Your task to perform on an android device: open app "DuckDuckGo Privacy Browser" Image 0: 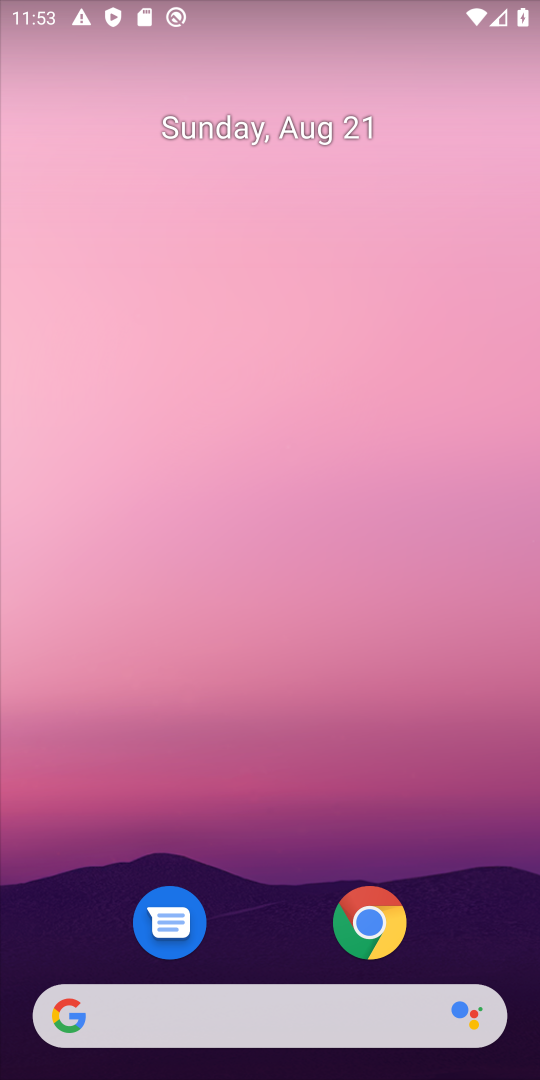
Step 0: drag from (256, 992) to (319, 433)
Your task to perform on an android device: open app "DuckDuckGo Privacy Browser" Image 1: 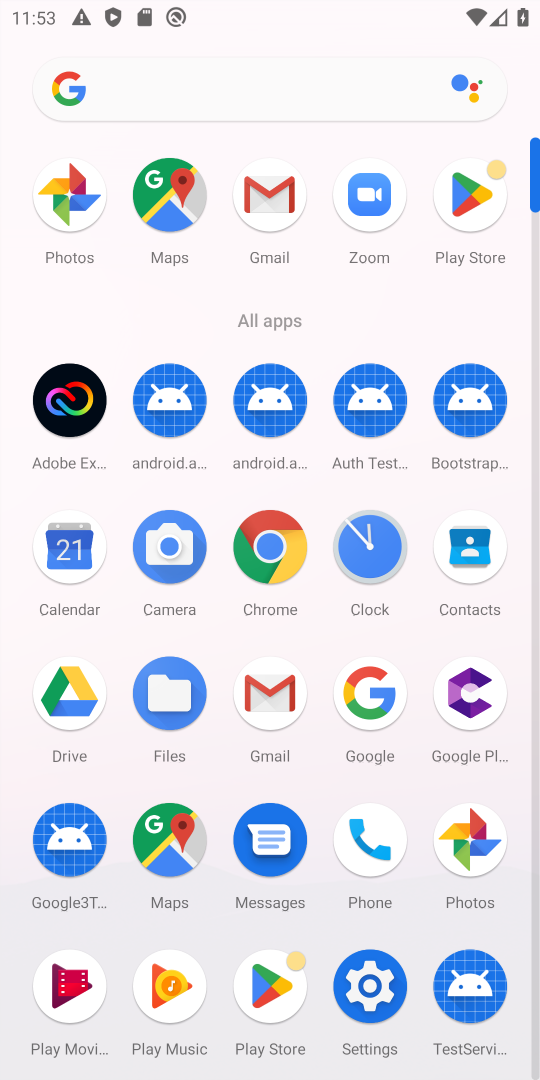
Step 1: click (480, 206)
Your task to perform on an android device: open app "DuckDuckGo Privacy Browser" Image 2: 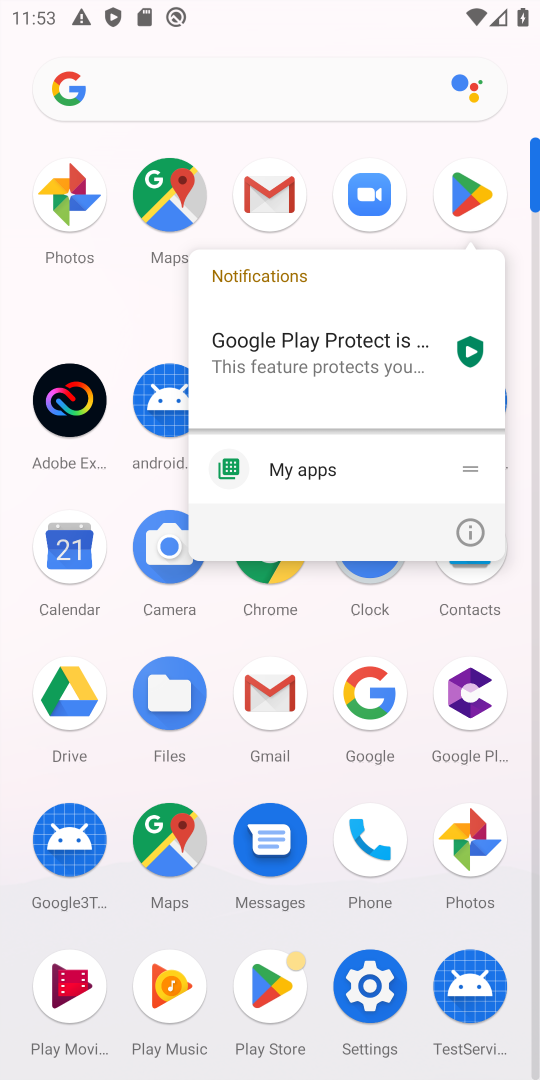
Step 2: click (475, 197)
Your task to perform on an android device: open app "DuckDuckGo Privacy Browser" Image 3: 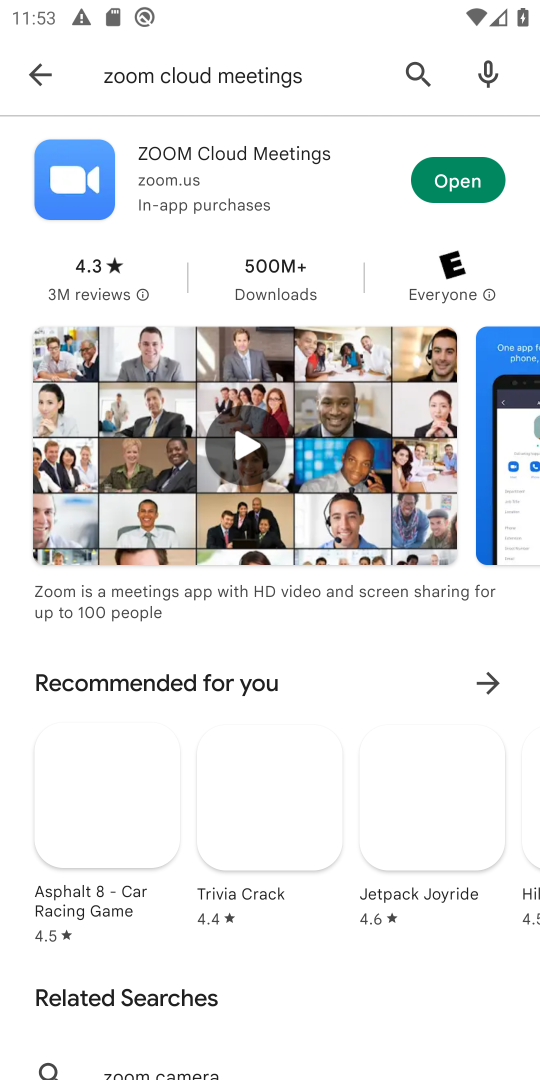
Step 3: click (413, 68)
Your task to perform on an android device: open app "DuckDuckGo Privacy Browser" Image 4: 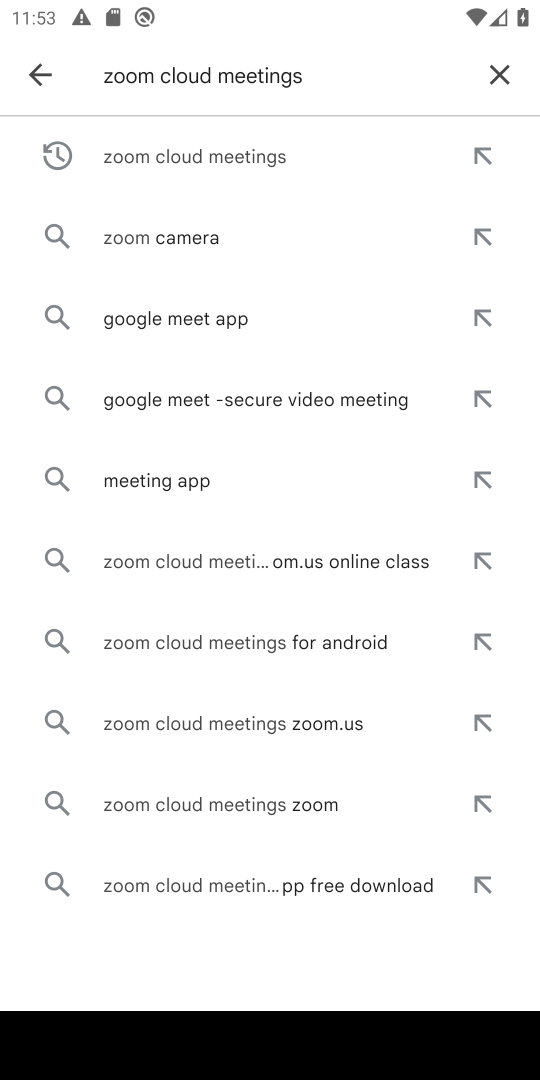
Step 4: click (486, 86)
Your task to perform on an android device: open app "DuckDuckGo Privacy Browser" Image 5: 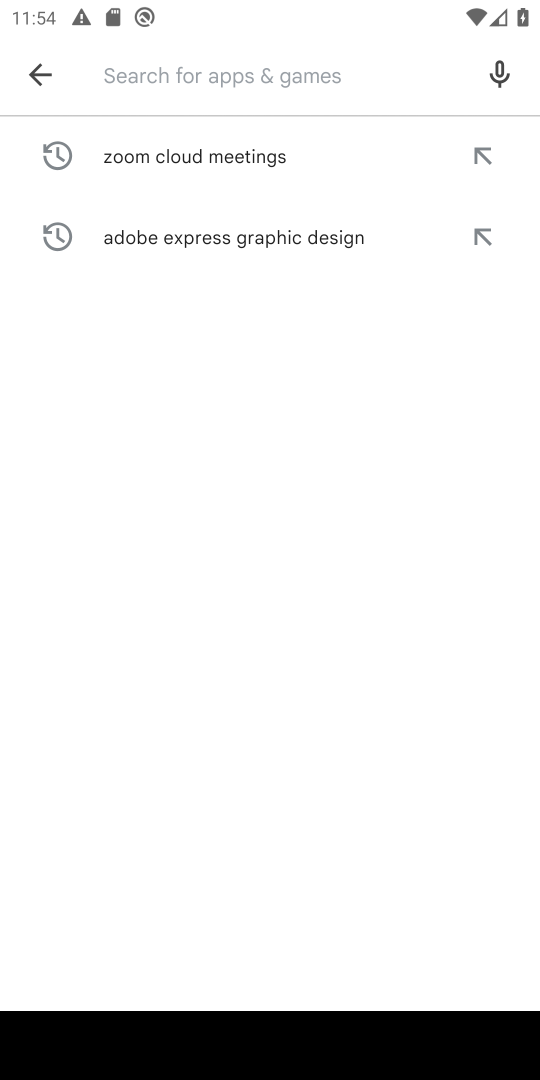
Step 5: type "DuckDuckGo Privacy Browser"
Your task to perform on an android device: open app "DuckDuckGo Privacy Browser" Image 6: 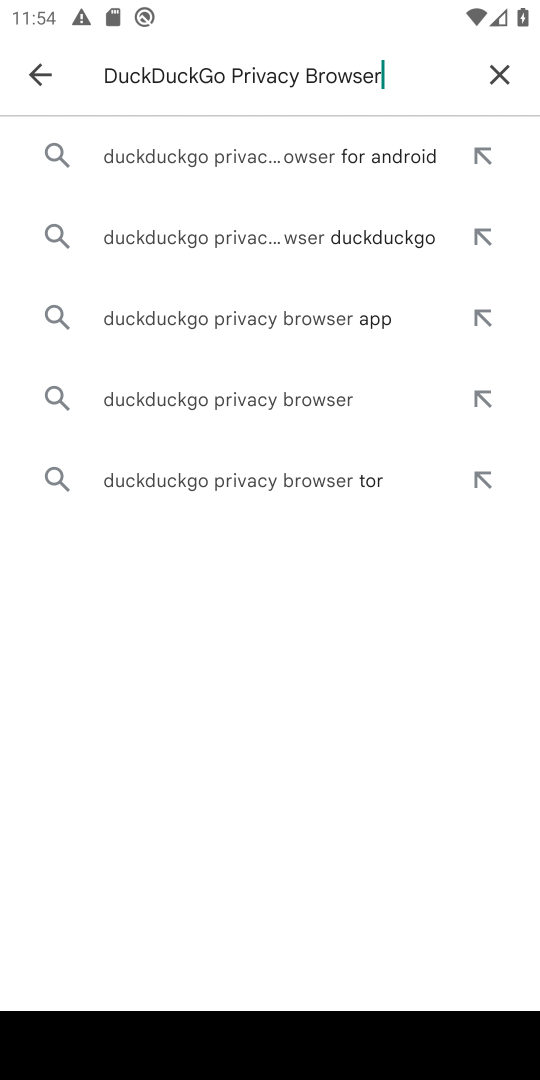
Step 6: click (256, 155)
Your task to perform on an android device: open app "DuckDuckGo Privacy Browser" Image 7: 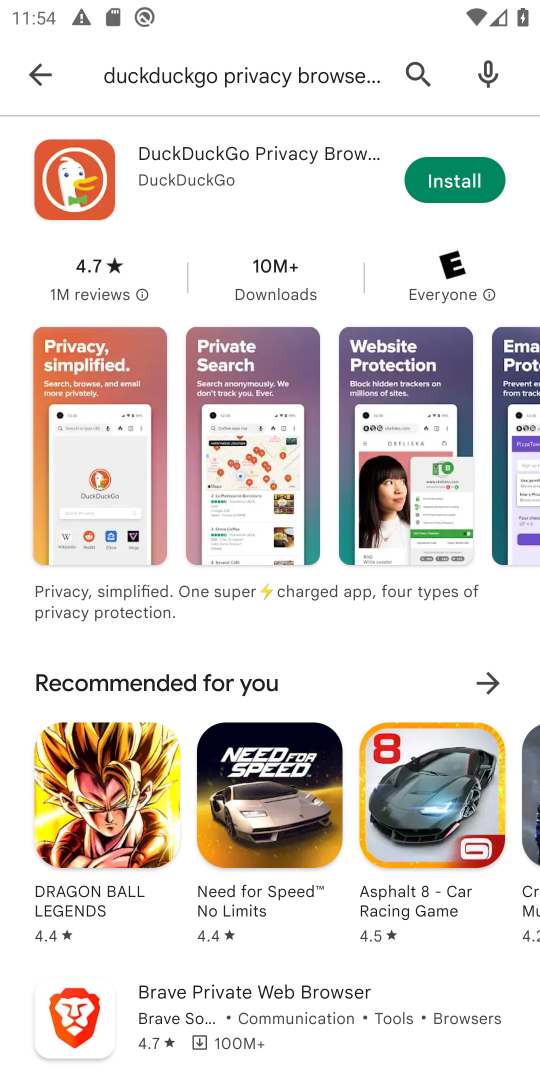
Step 7: click (436, 182)
Your task to perform on an android device: open app "DuckDuckGo Privacy Browser" Image 8: 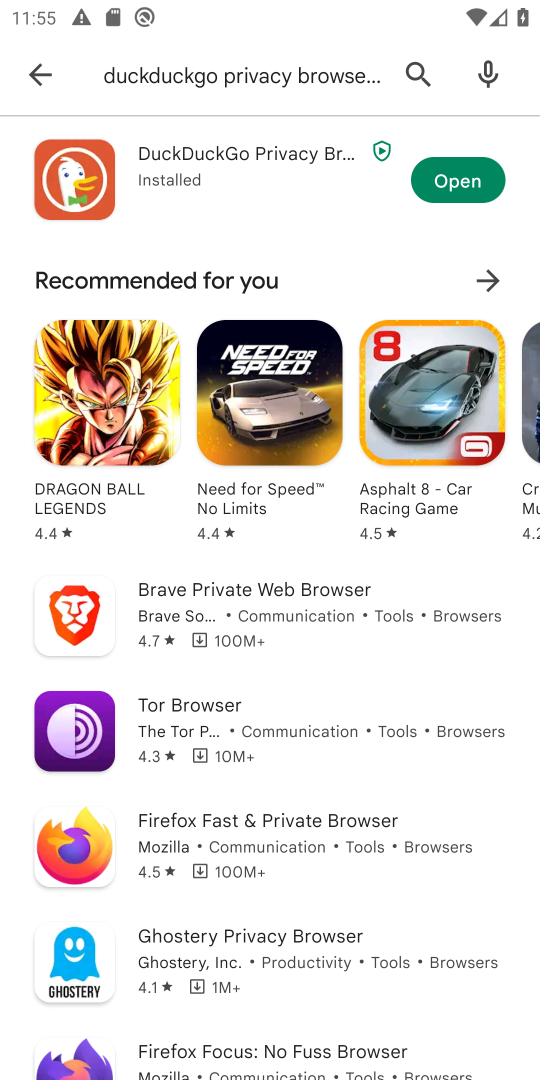
Step 8: click (480, 175)
Your task to perform on an android device: open app "DuckDuckGo Privacy Browser" Image 9: 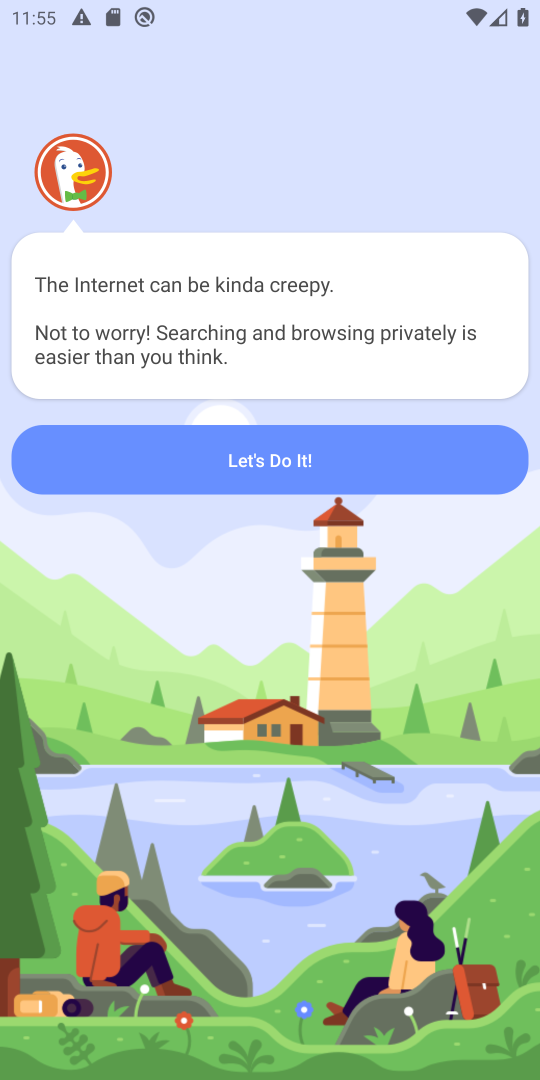
Step 9: task complete